Your task to perform on an android device: What's the weather going to be tomorrow? Image 0: 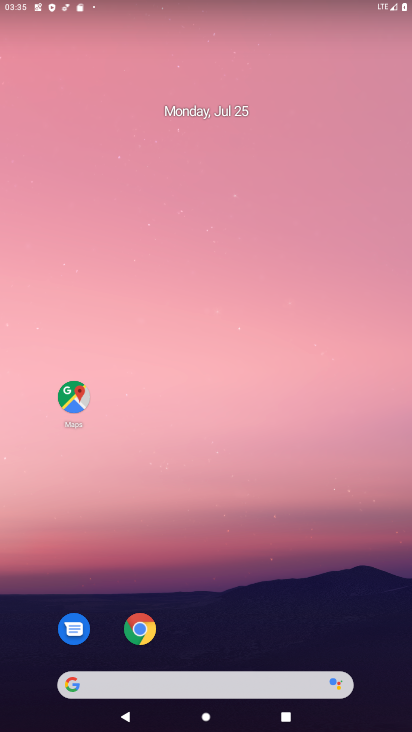
Step 0: click (206, 685)
Your task to perform on an android device: What's the weather going to be tomorrow? Image 1: 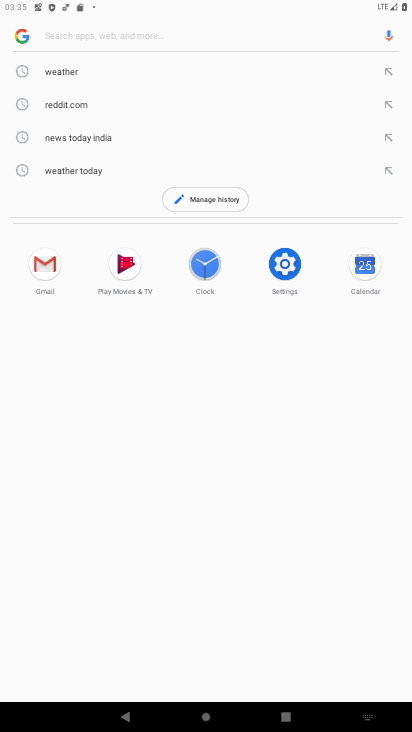
Step 1: click (61, 81)
Your task to perform on an android device: What's the weather going to be tomorrow? Image 2: 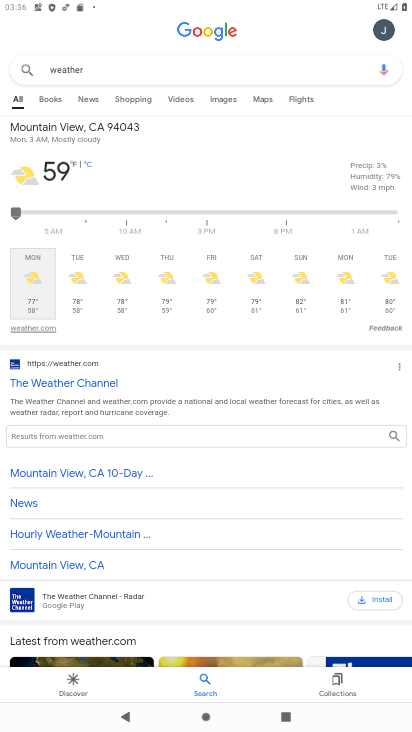
Step 2: click (82, 289)
Your task to perform on an android device: What's the weather going to be tomorrow? Image 3: 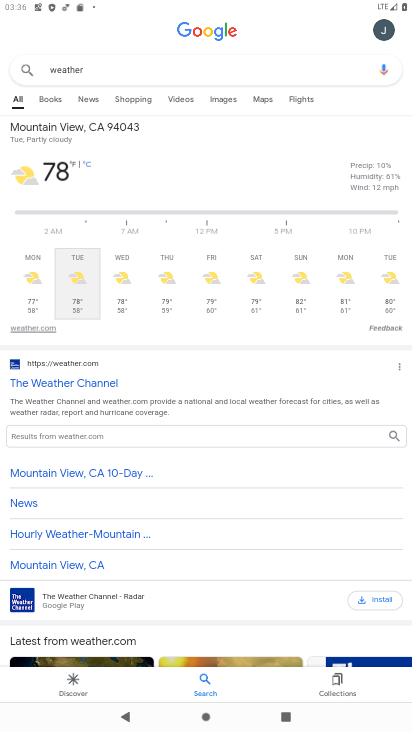
Step 3: task complete